Your task to perform on an android device: Open Amazon Image 0: 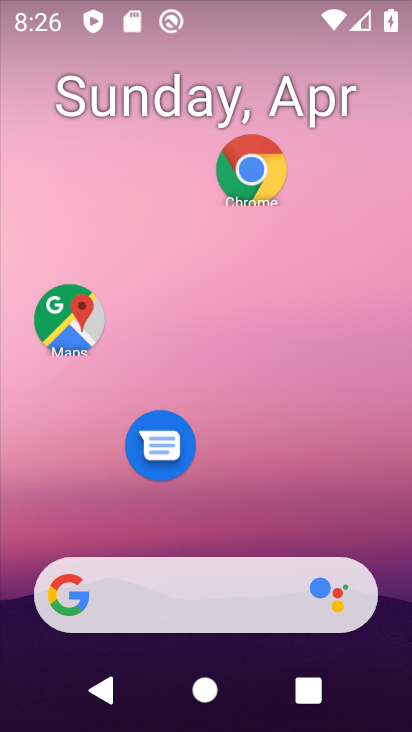
Step 0: click (256, 172)
Your task to perform on an android device: Open Amazon Image 1: 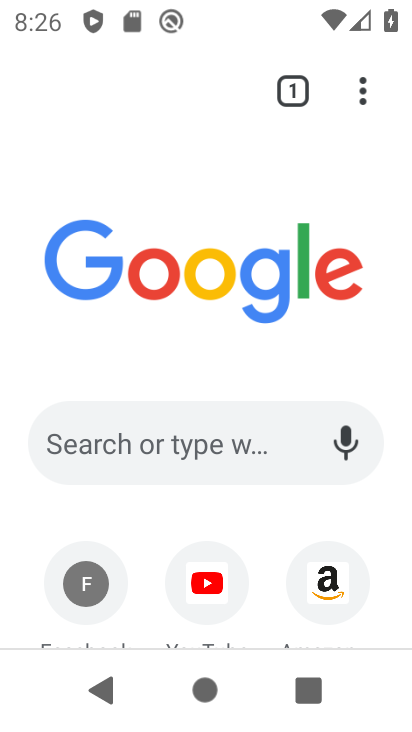
Step 1: click (341, 570)
Your task to perform on an android device: Open Amazon Image 2: 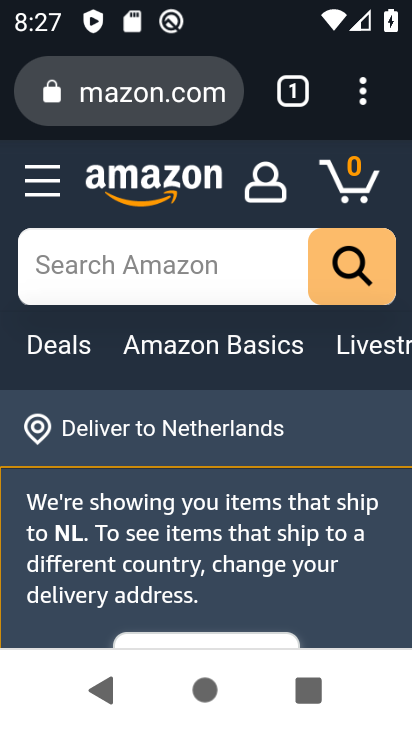
Step 2: task complete